Your task to perform on an android device: Open accessibility settings Image 0: 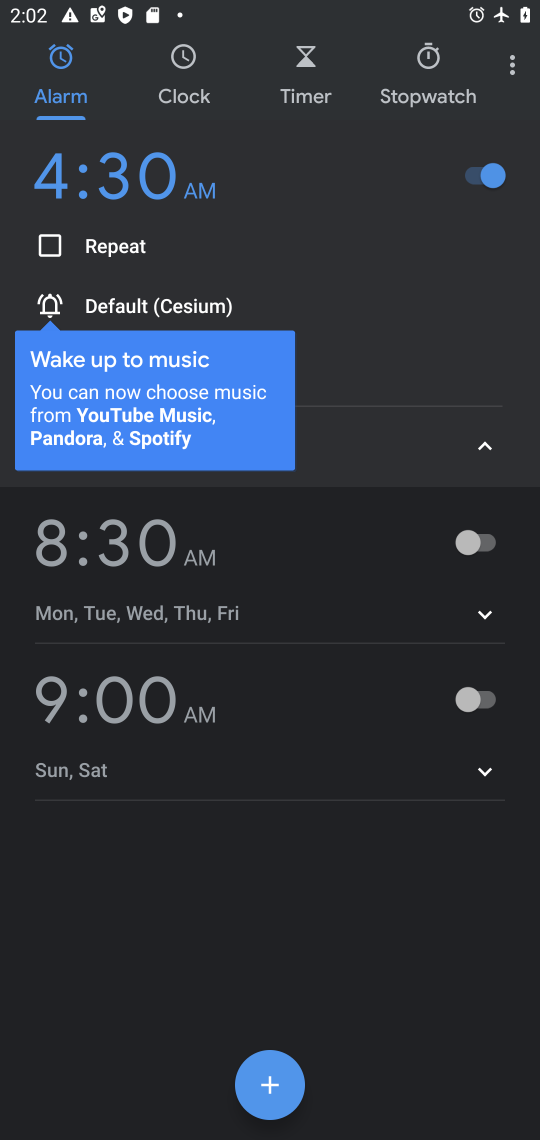
Step 0: press home button
Your task to perform on an android device: Open accessibility settings Image 1: 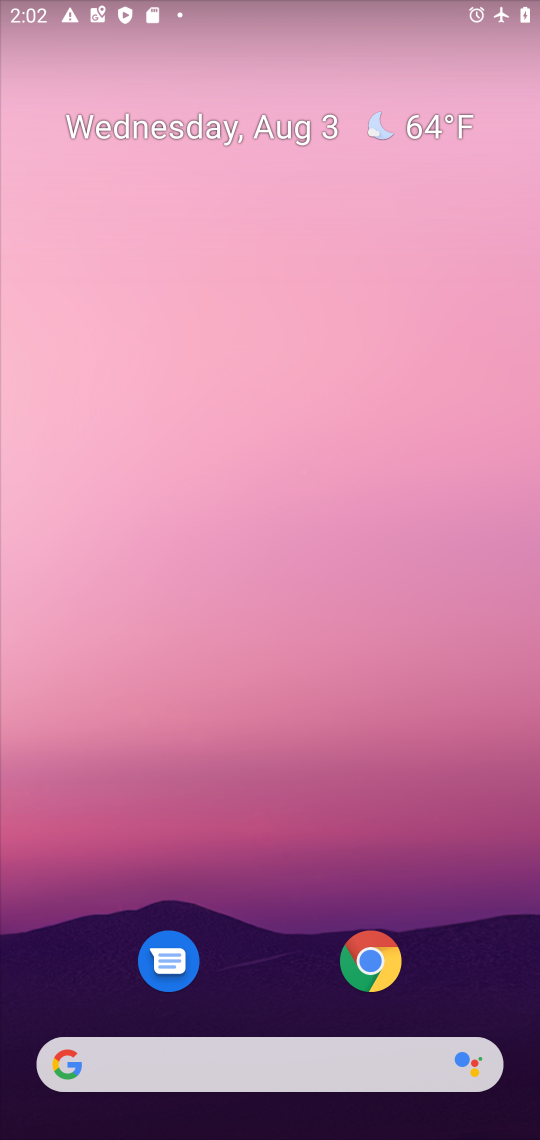
Step 1: drag from (266, 922) to (266, 23)
Your task to perform on an android device: Open accessibility settings Image 2: 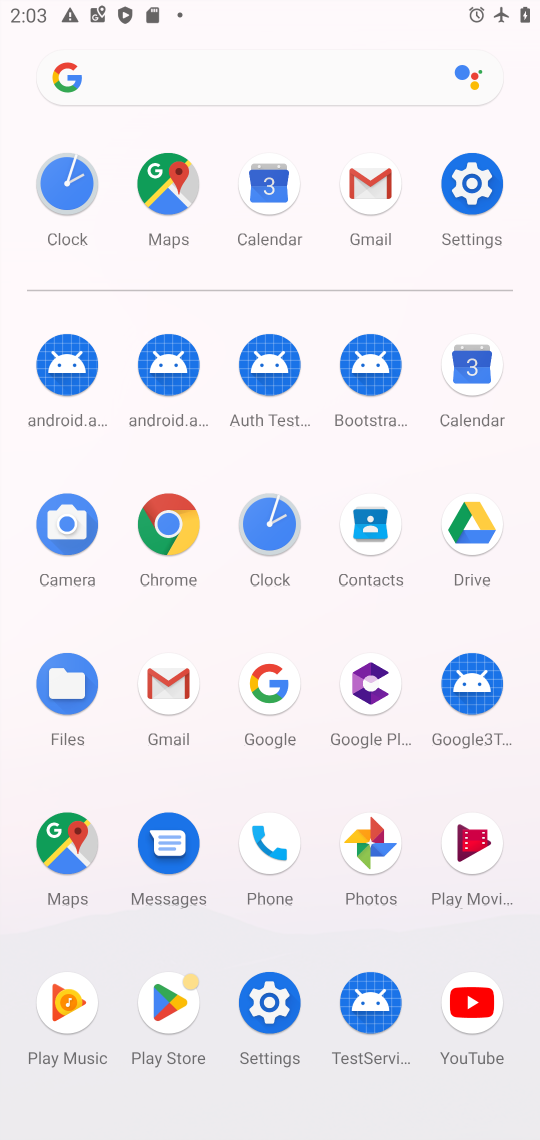
Step 2: click (476, 181)
Your task to perform on an android device: Open accessibility settings Image 3: 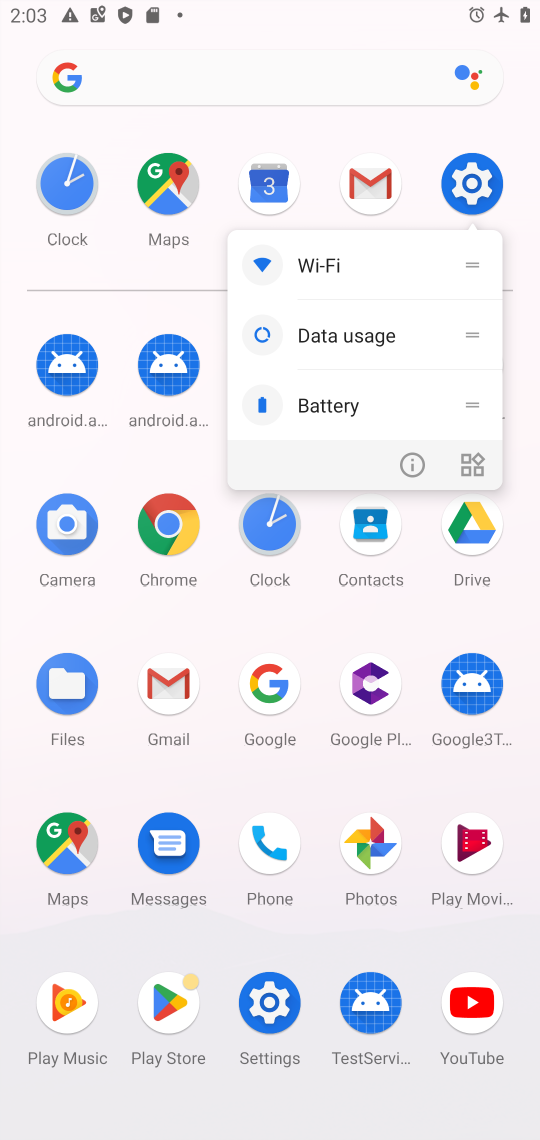
Step 3: click (476, 181)
Your task to perform on an android device: Open accessibility settings Image 4: 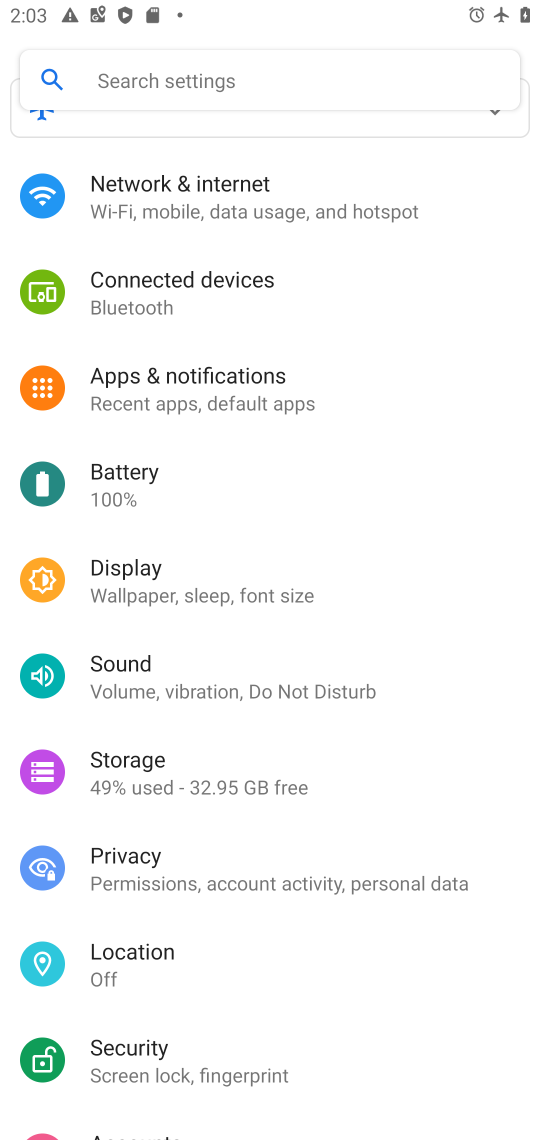
Step 4: drag from (497, 920) to (500, 625)
Your task to perform on an android device: Open accessibility settings Image 5: 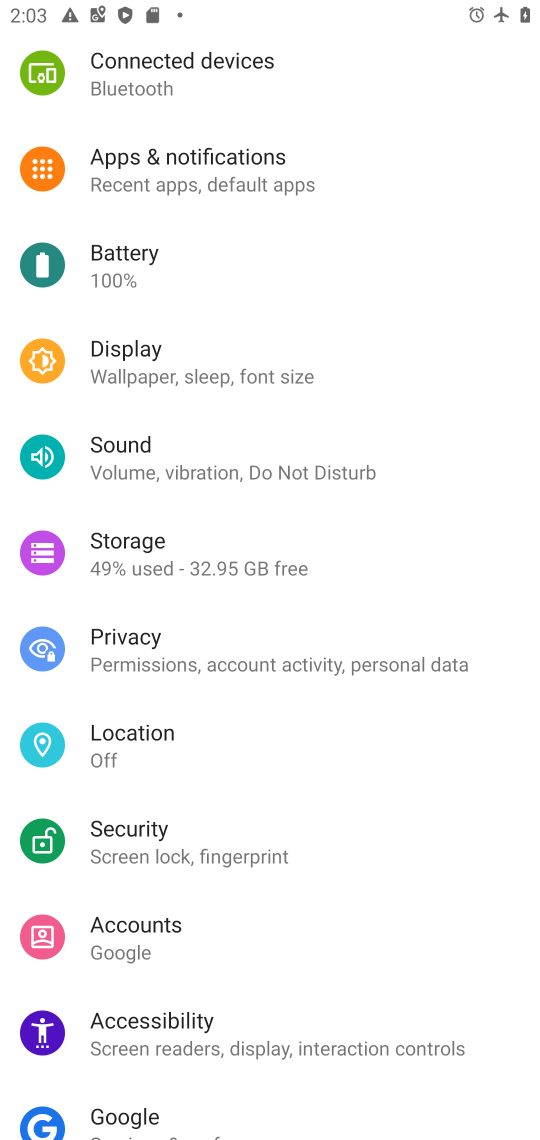
Step 5: click (97, 1044)
Your task to perform on an android device: Open accessibility settings Image 6: 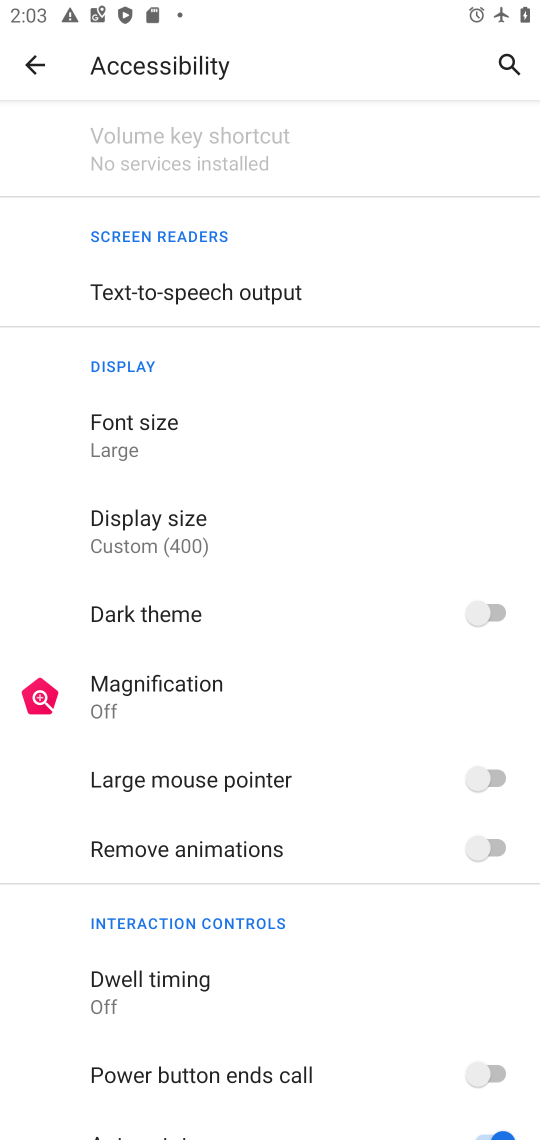
Step 6: task complete